Your task to perform on an android device: turn off smart reply in the gmail app Image 0: 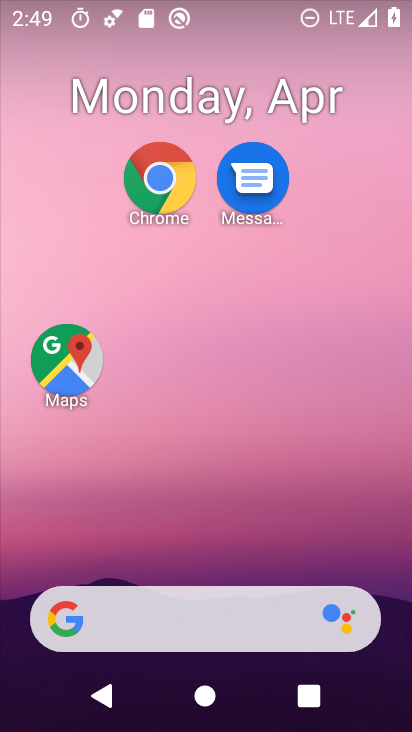
Step 0: drag from (322, 544) to (273, 52)
Your task to perform on an android device: turn off smart reply in the gmail app Image 1: 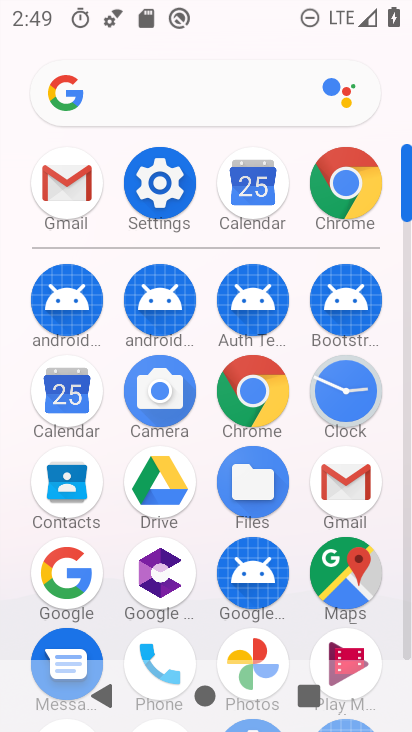
Step 1: click (353, 489)
Your task to perform on an android device: turn off smart reply in the gmail app Image 2: 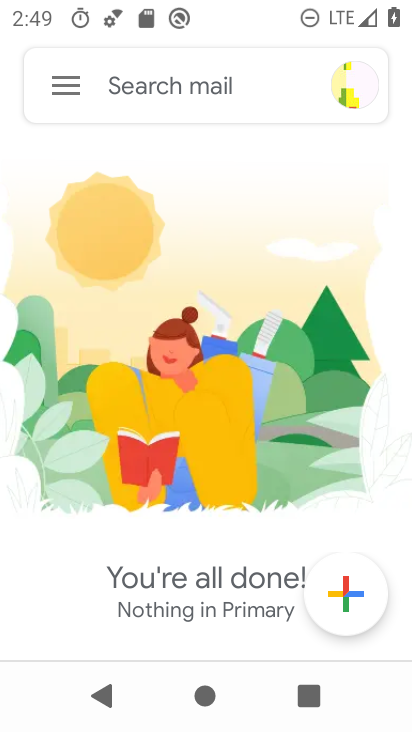
Step 2: click (59, 90)
Your task to perform on an android device: turn off smart reply in the gmail app Image 3: 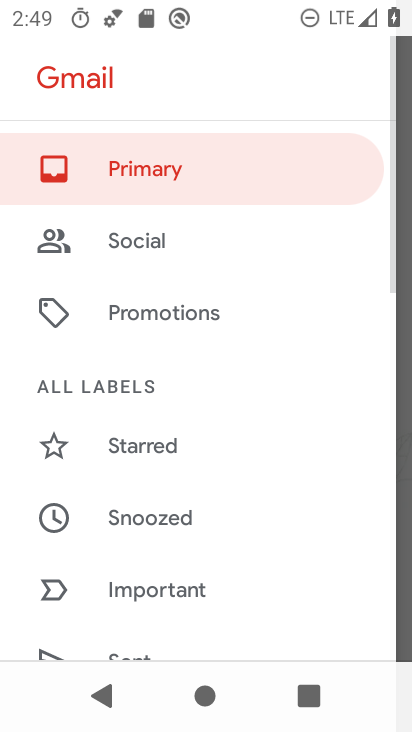
Step 3: drag from (111, 639) to (117, 178)
Your task to perform on an android device: turn off smart reply in the gmail app Image 4: 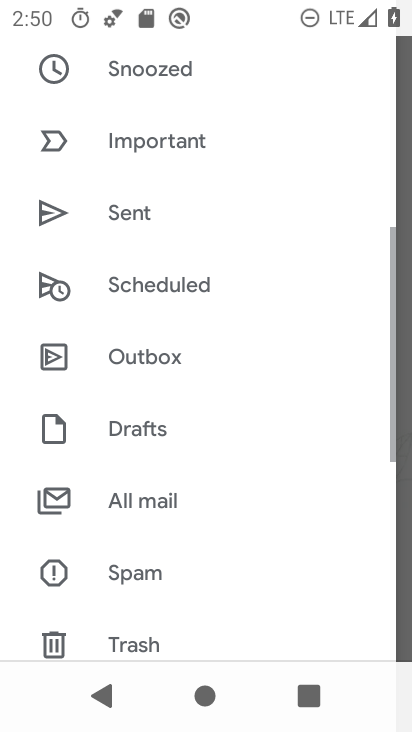
Step 4: drag from (140, 624) to (148, 65)
Your task to perform on an android device: turn off smart reply in the gmail app Image 5: 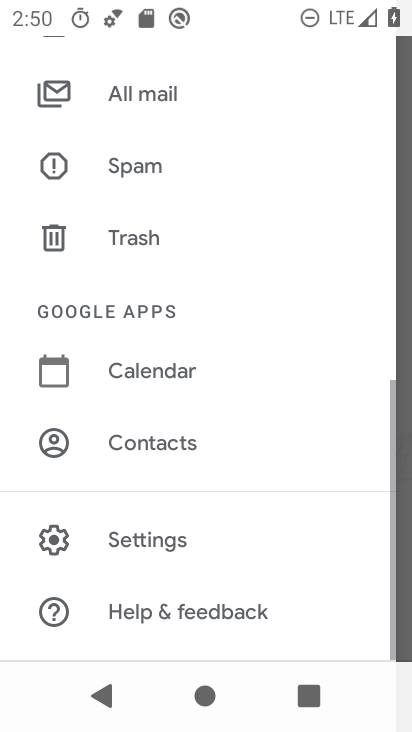
Step 5: click (151, 556)
Your task to perform on an android device: turn off smart reply in the gmail app Image 6: 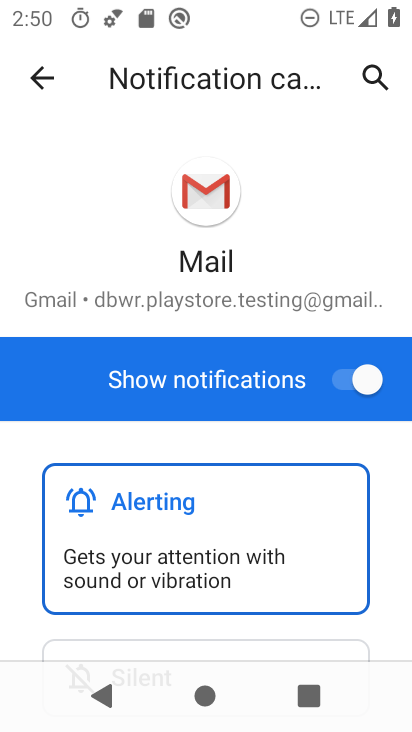
Step 6: drag from (203, 552) to (178, 73)
Your task to perform on an android device: turn off smart reply in the gmail app Image 7: 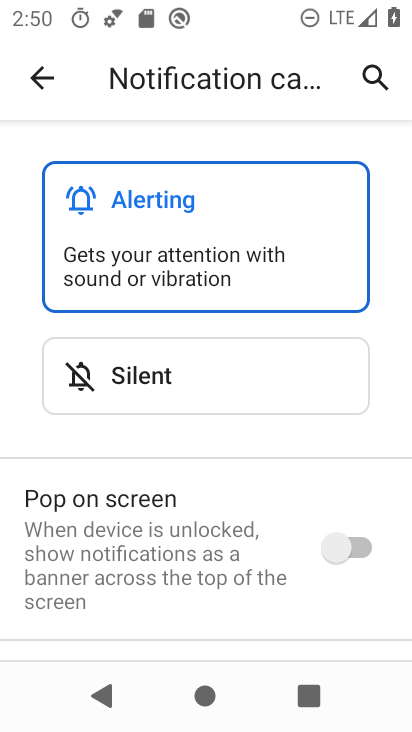
Step 7: drag from (249, 219) to (228, 648)
Your task to perform on an android device: turn off smart reply in the gmail app Image 8: 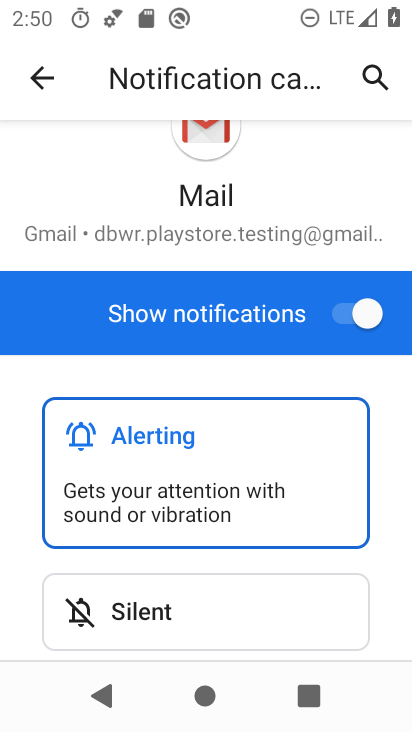
Step 8: press back button
Your task to perform on an android device: turn off smart reply in the gmail app Image 9: 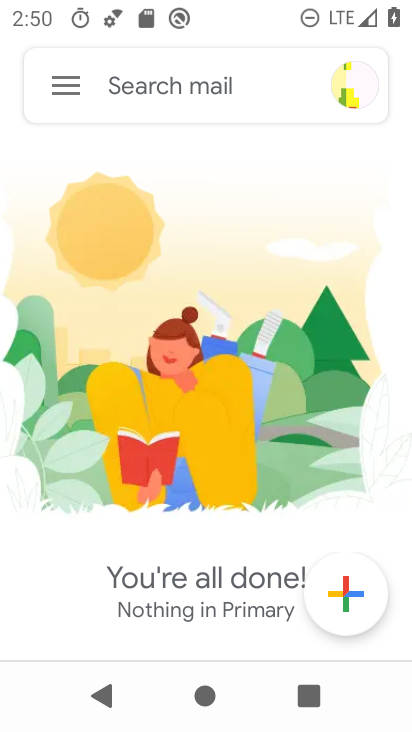
Step 9: click (70, 95)
Your task to perform on an android device: turn off smart reply in the gmail app Image 10: 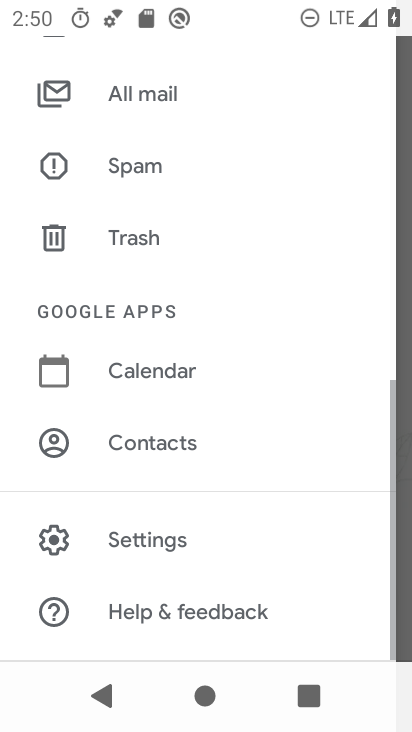
Step 10: click (183, 542)
Your task to perform on an android device: turn off smart reply in the gmail app Image 11: 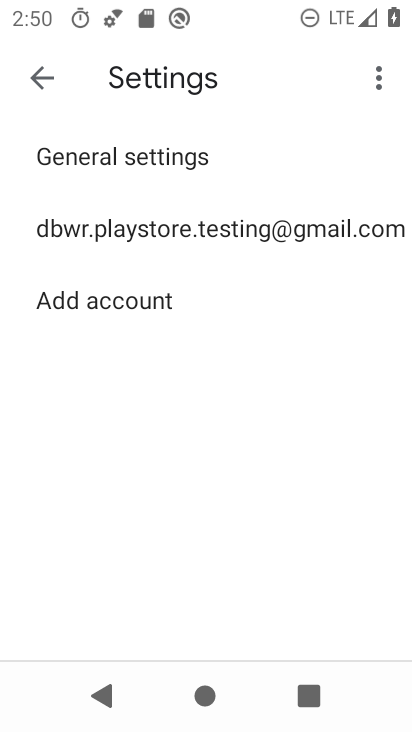
Step 11: click (270, 224)
Your task to perform on an android device: turn off smart reply in the gmail app Image 12: 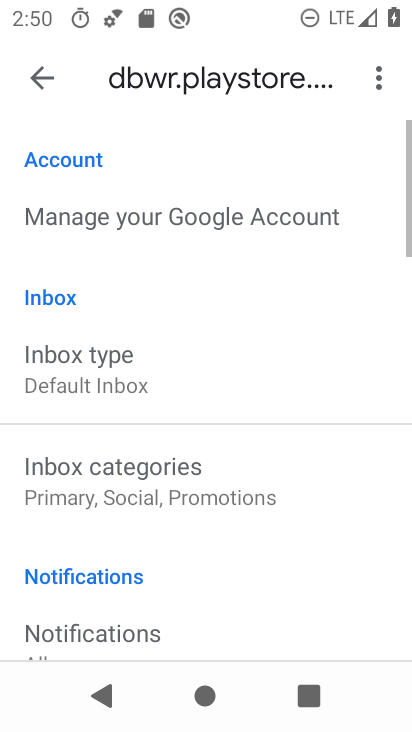
Step 12: drag from (224, 552) to (185, 214)
Your task to perform on an android device: turn off smart reply in the gmail app Image 13: 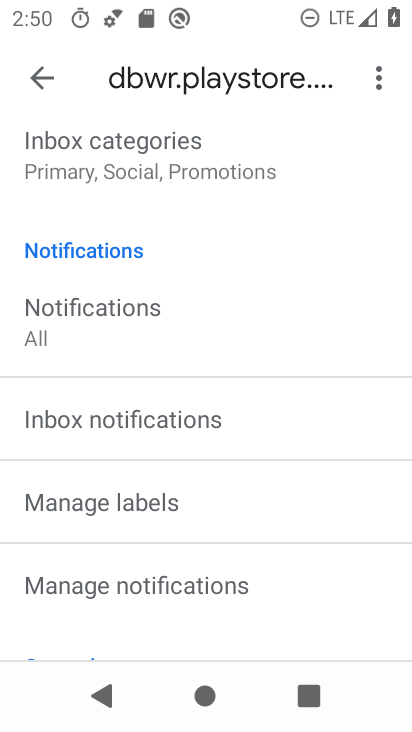
Step 13: drag from (272, 563) to (248, 230)
Your task to perform on an android device: turn off smart reply in the gmail app Image 14: 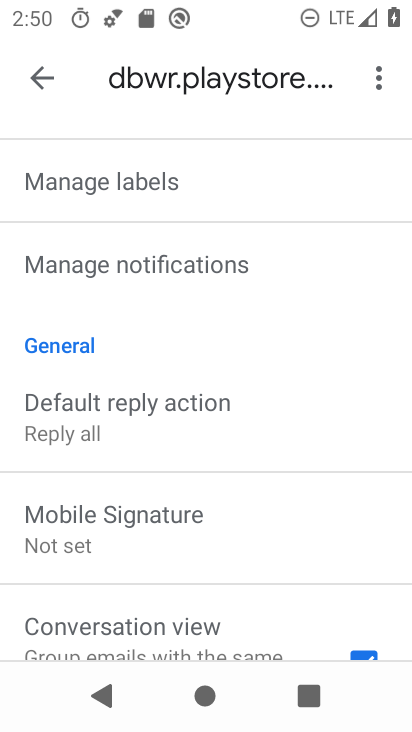
Step 14: drag from (243, 605) to (249, 97)
Your task to perform on an android device: turn off smart reply in the gmail app Image 15: 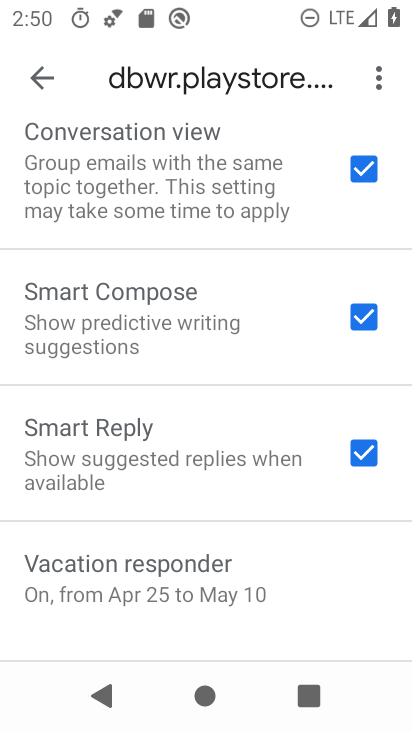
Step 15: click (364, 428)
Your task to perform on an android device: turn off smart reply in the gmail app Image 16: 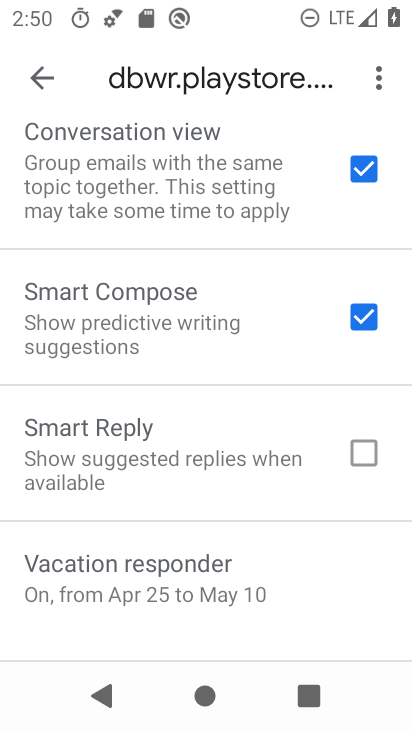
Step 16: task complete